Your task to perform on an android device: See recent photos Image 0: 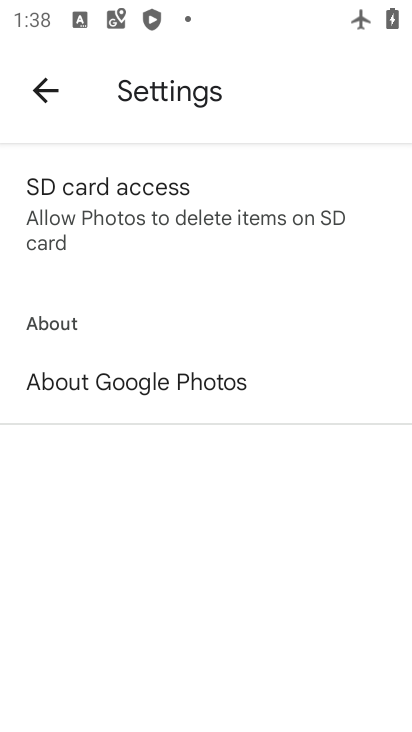
Step 0: press home button
Your task to perform on an android device: See recent photos Image 1: 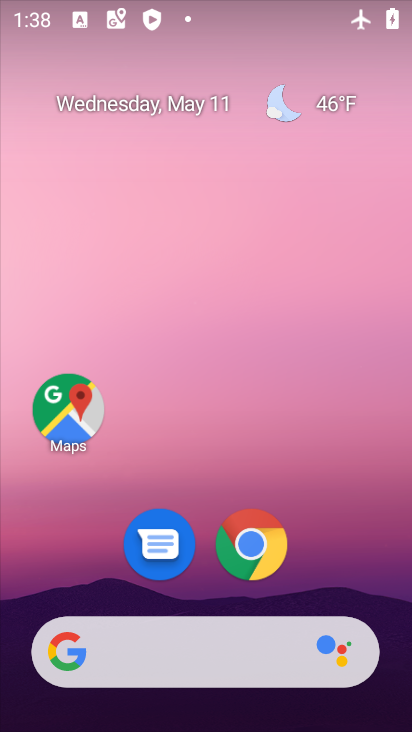
Step 1: drag from (394, 639) to (260, 32)
Your task to perform on an android device: See recent photos Image 2: 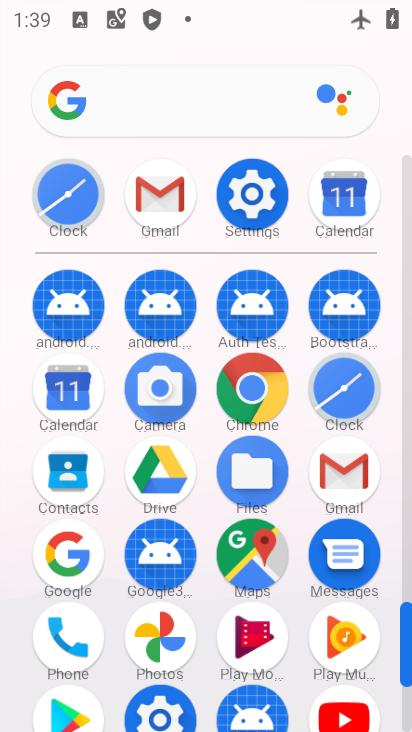
Step 2: click (407, 711)
Your task to perform on an android device: See recent photos Image 3: 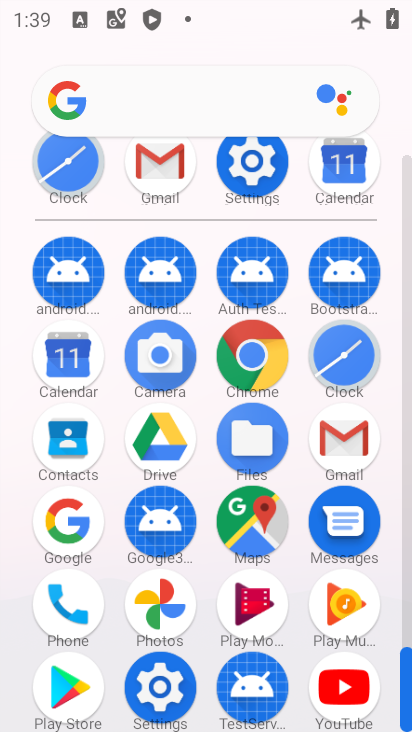
Step 3: click (159, 603)
Your task to perform on an android device: See recent photos Image 4: 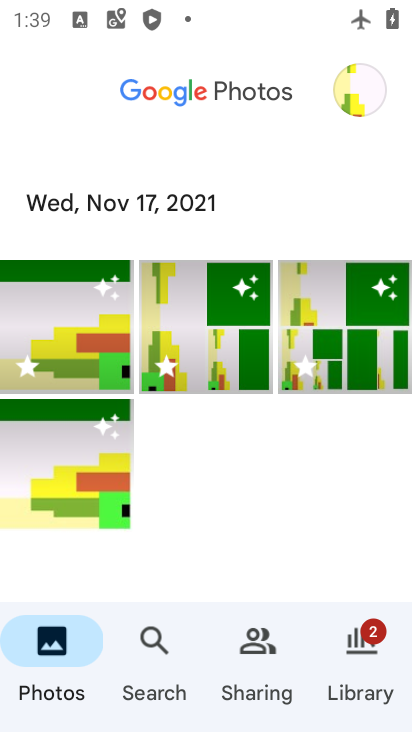
Step 4: task complete